Your task to perform on an android device: What's the weather going to be this weekend? Image 0: 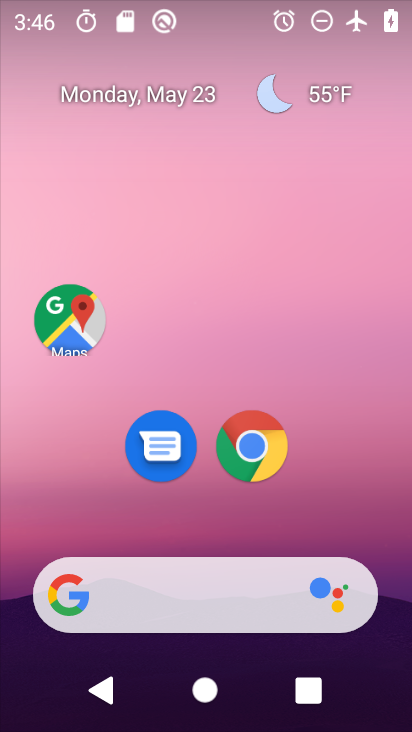
Step 0: drag from (197, 516) to (217, 161)
Your task to perform on an android device: What's the weather going to be this weekend? Image 1: 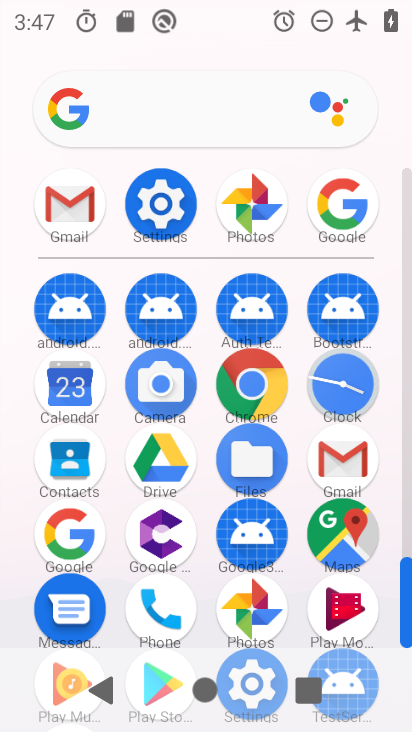
Step 1: drag from (212, 577) to (189, 221)
Your task to perform on an android device: What's the weather going to be this weekend? Image 2: 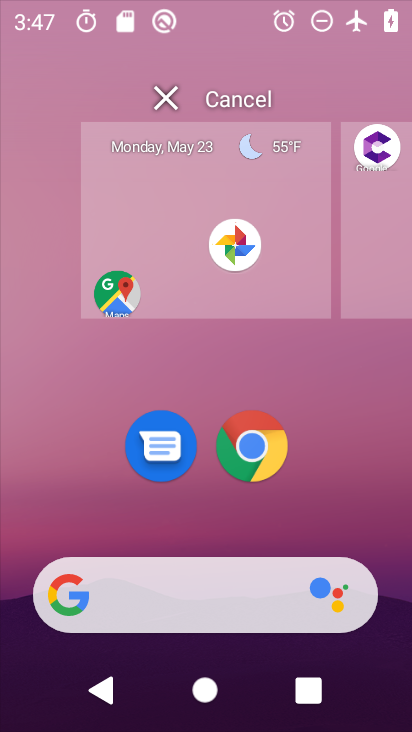
Step 2: drag from (216, 154) to (192, 219)
Your task to perform on an android device: What's the weather going to be this weekend? Image 3: 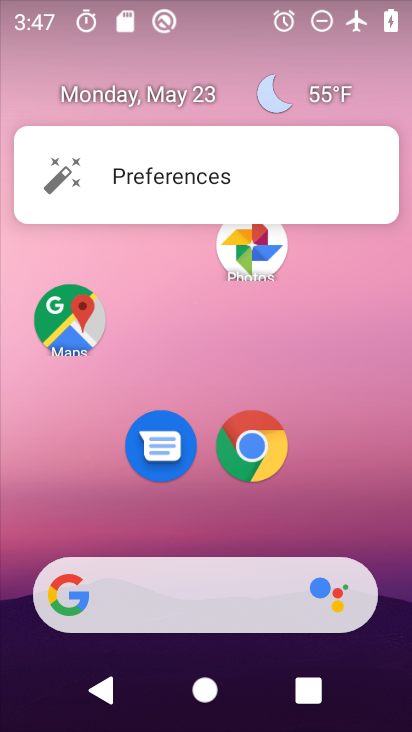
Step 3: click (185, 316)
Your task to perform on an android device: What's the weather going to be this weekend? Image 4: 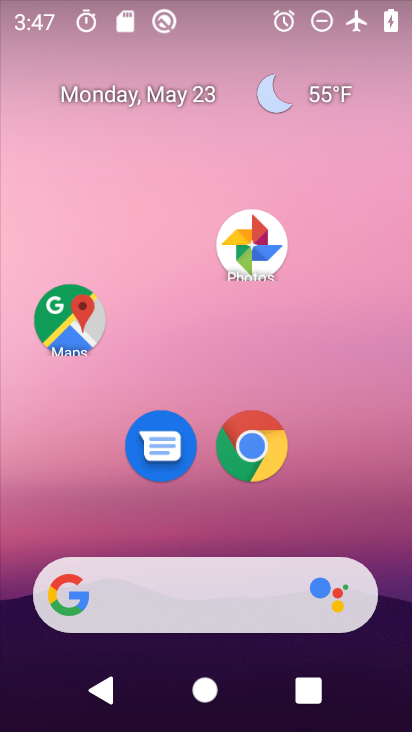
Step 4: drag from (234, 560) to (216, 205)
Your task to perform on an android device: What's the weather going to be this weekend? Image 5: 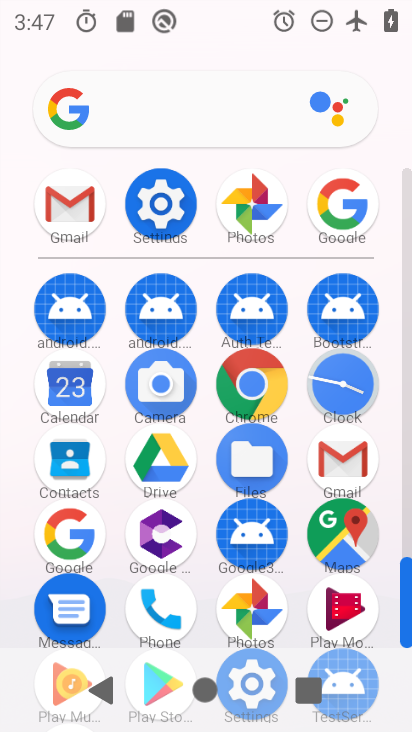
Step 5: click (87, 536)
Your task to perform on an android device: What's the weather going to be this weekend? Image 6: 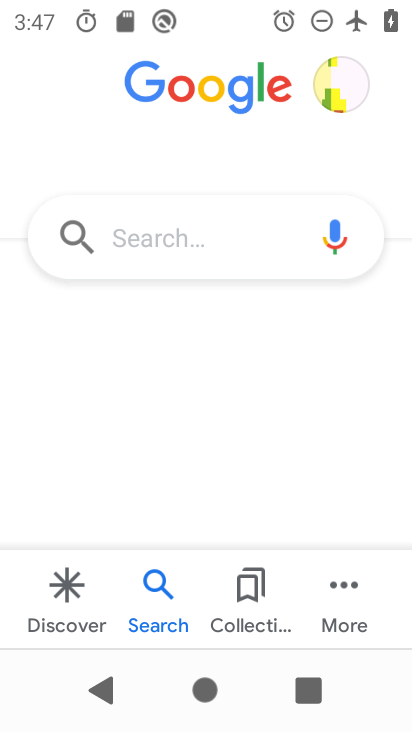
Step 6: click (163, 238)
Your task to perform on an android device: What's the weather going to be this weekend? Image 7: 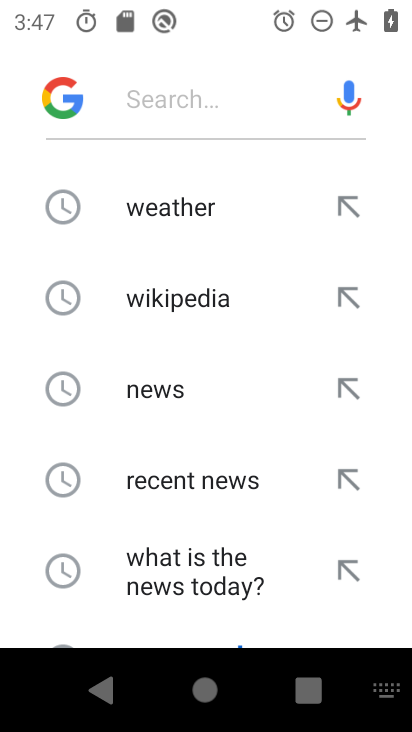
Step 7: click (162, 204)
Your task to perform on an android device: What's the weather going to be this weekend? Image 8: 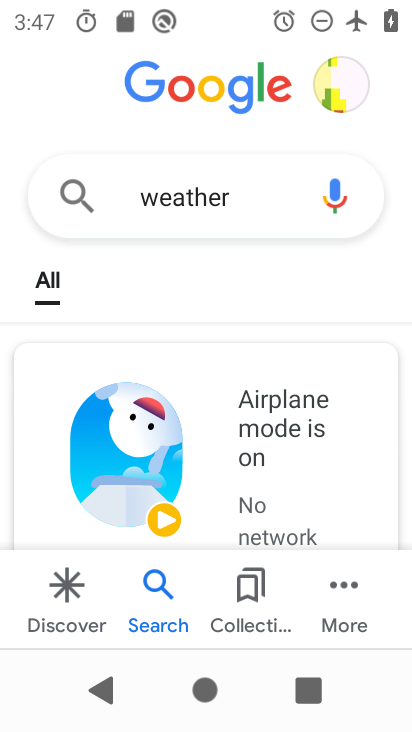
Step 8: task complete